Your task to perform on an android device: Go to accessibility settings Image 0: 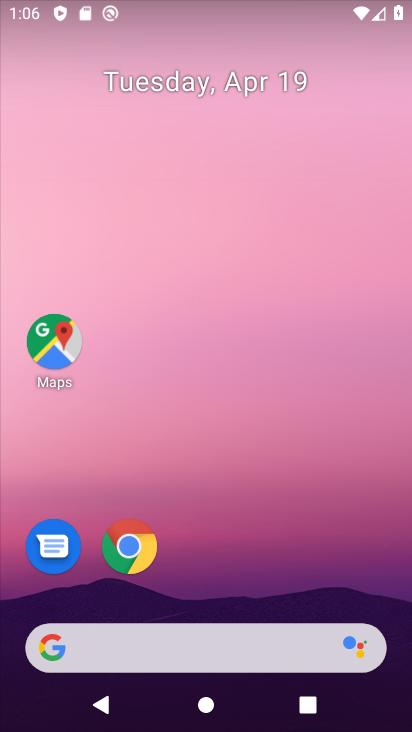
Step 0: drag from (216, 547) to (248, 2)
Your task to perform on an android device: Go to accessibility settings Image 1: 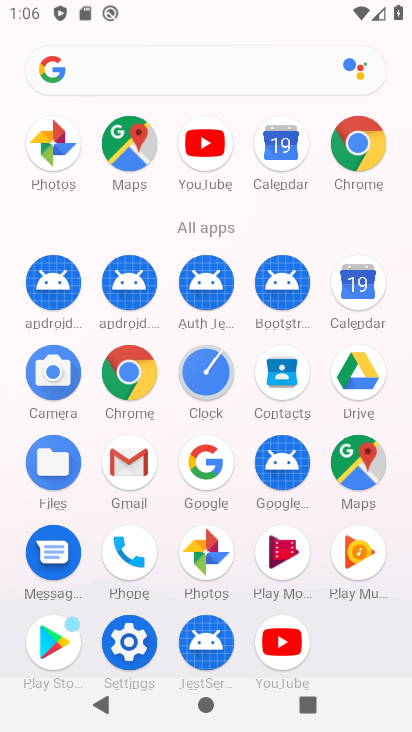
Step 1: click (122, 642)
Your task to perform on an android device: Go to accessibility settings Image 2: 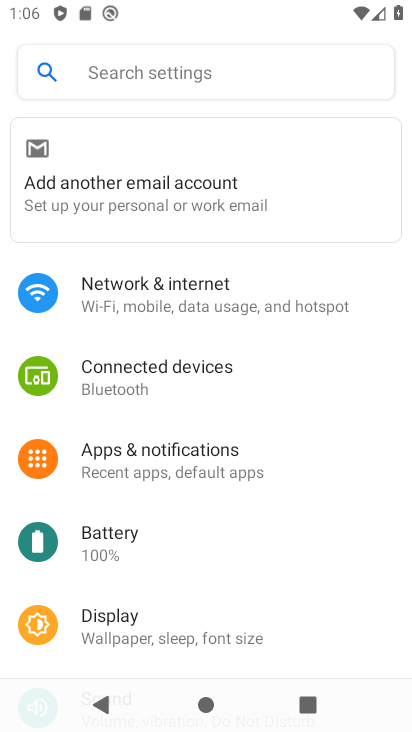
Step 2: drag from (171, 521) to (225, 101)
Your task to perform on an android device: Go to accessibility settings Image 3: 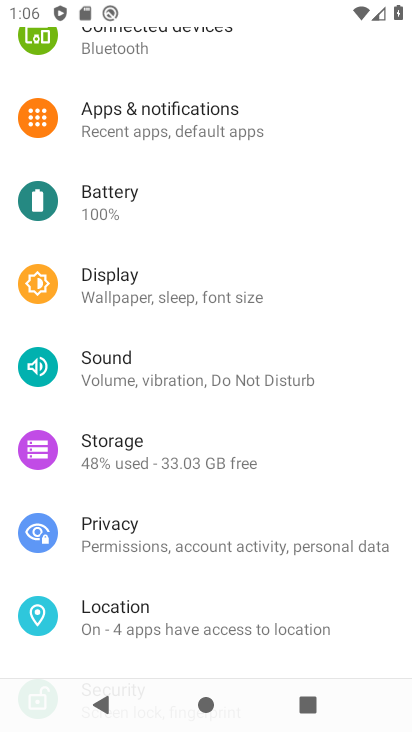
Step 3: drag from (233, 317) to (300, 70)
Your task to perform on an android device: Go to accessibility settings Image 4: 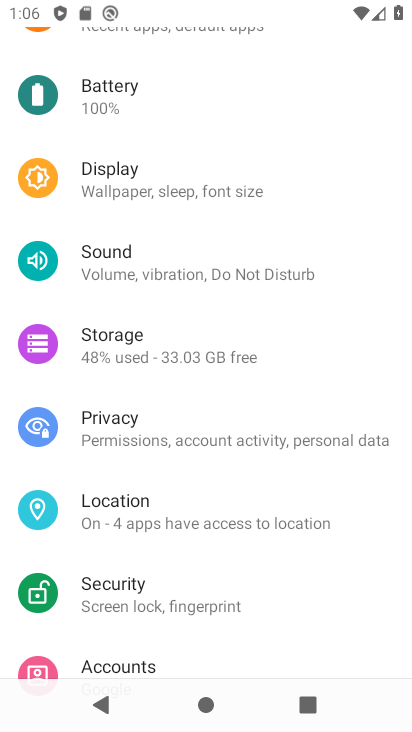
Step 4: drag from (153, 605) to (231, 90)
Your task to perform on an android device: Go to accessibility settings Image 5: 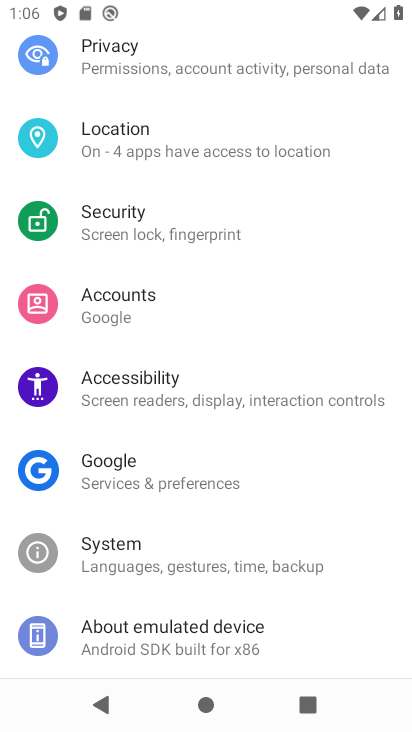
Step 5: click (102, 393)
Your task to perform on an android device: Go to accessibility settings Image 6: 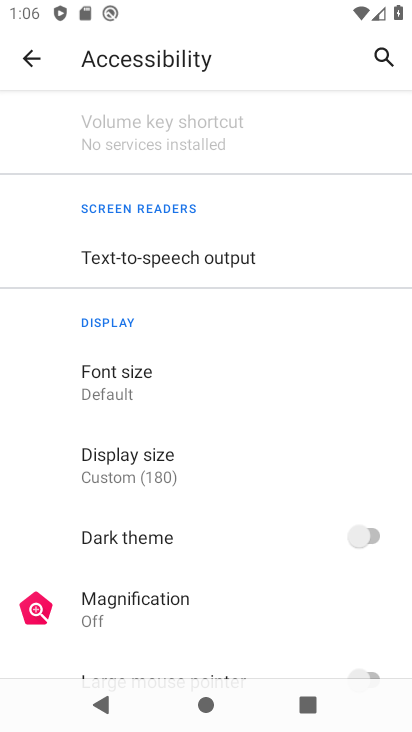
Step 6: task complete